Your task to perform on an android device: change alarm snooze length Image 0: 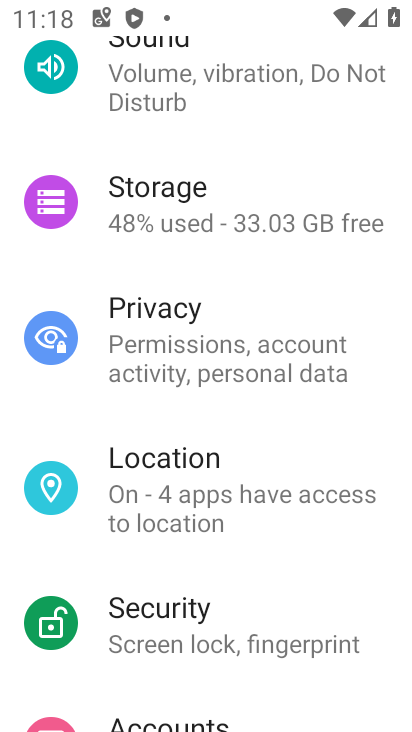
Step 0: press home button
Your task to perform on an android device: change alarm snooze length Image 1: 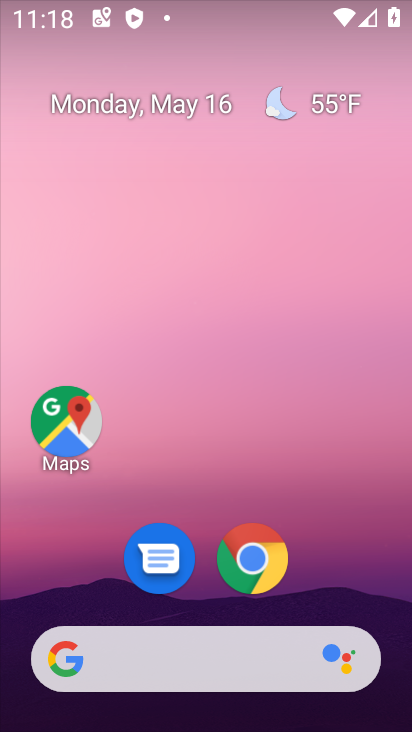
Step 1: drag from (117, 512) to (190, 87)
Your task to perform on an android device: change alarm snooze length Image 2: 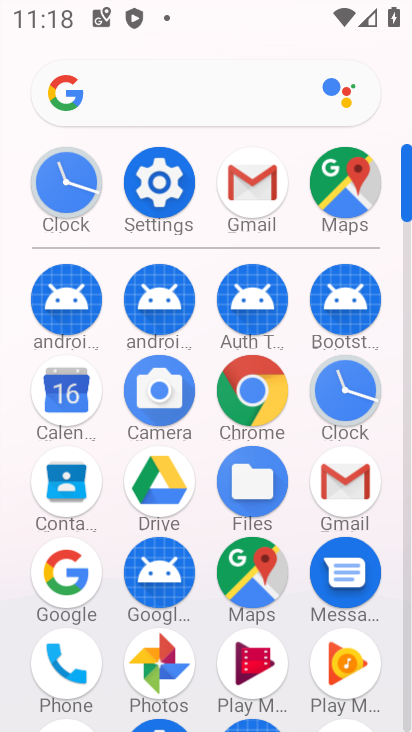
Step 2: click (347, 395)
Your task to perform on an android device: change alarm snooze length Image 3: 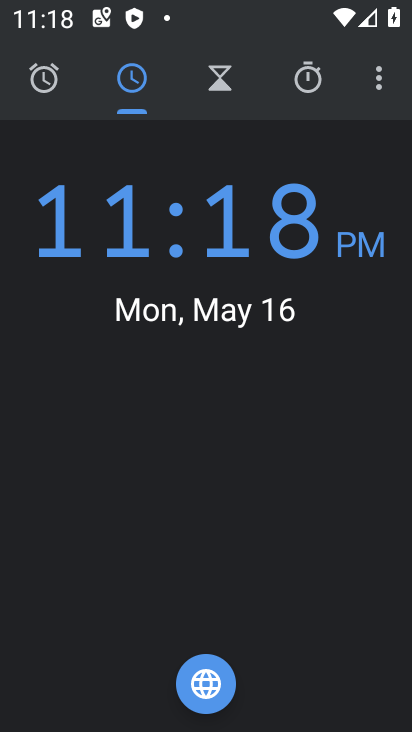
Step 3: click (367, 74)
Your task to perform on an android device: change alarm snooze length Image 4: 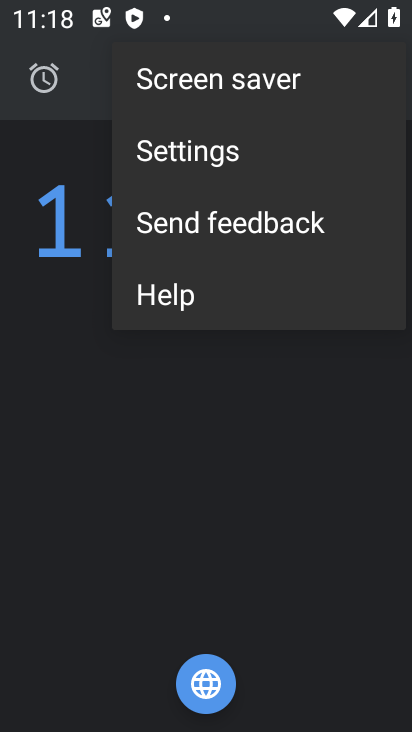
Step 4: click (261, 167)
Your task to perform on an android device: change alarm snooze length Image 5: 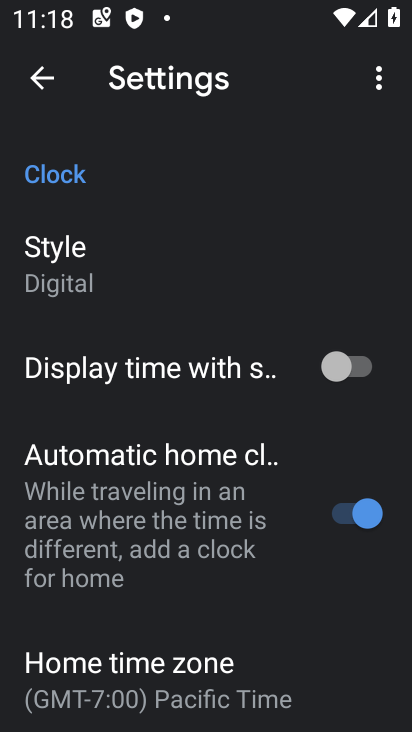
Step 5: drag from (213, 537) to (223, 205)
Your task to perform on an android device: change alarm snooze length Image 6: 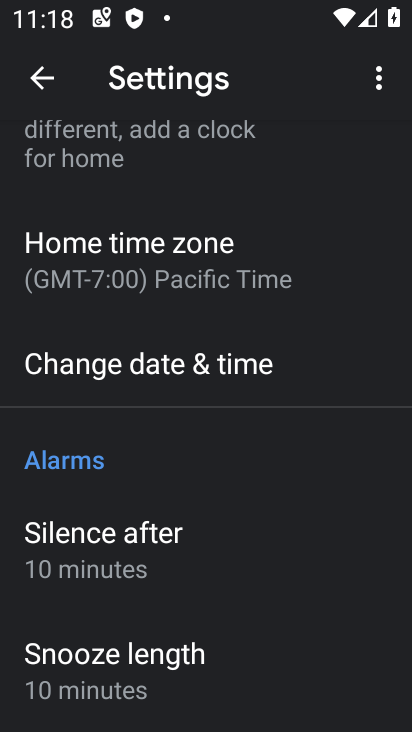
Step 6: drag from (244, 575) to (226, 407)
Your task to perform on an android device: change alarm snooze length Image 7: 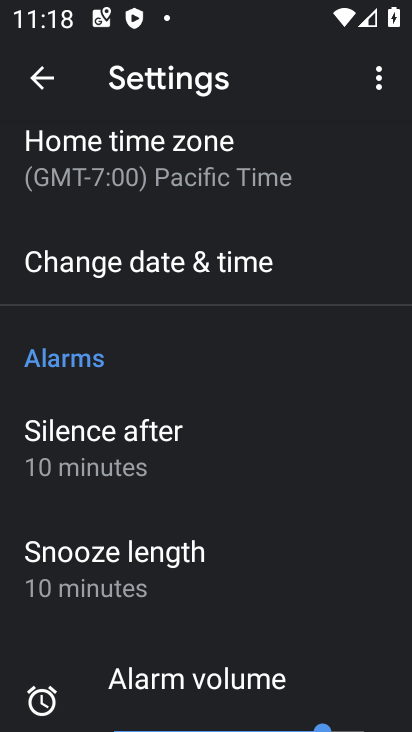
Step 7: click (151, 557)
Your task to perform on an android device: change alarm snooze length Image 8: 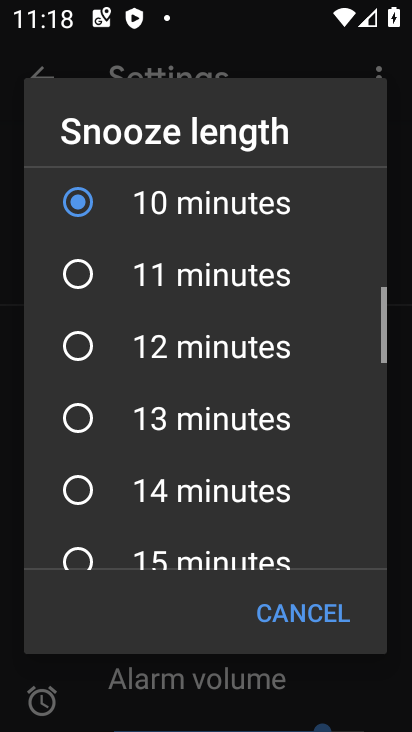
Step 8: click (70, 338)
Your task to perform on an android device: change alarm snooze length Image 9: 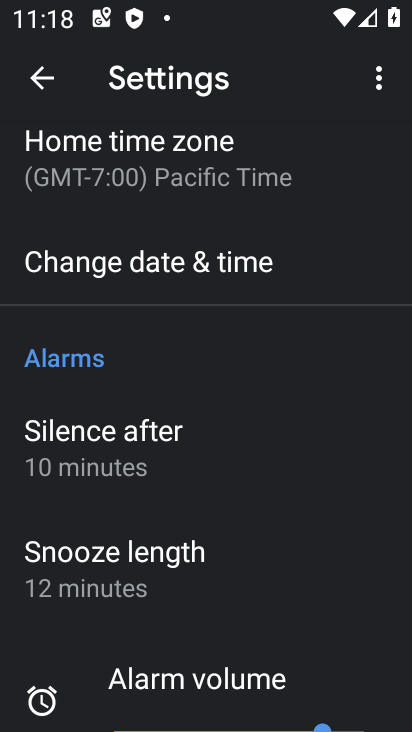
Step 9: task complete